Your task to perform on an android device: set default search engine in the chrome app Image 0: 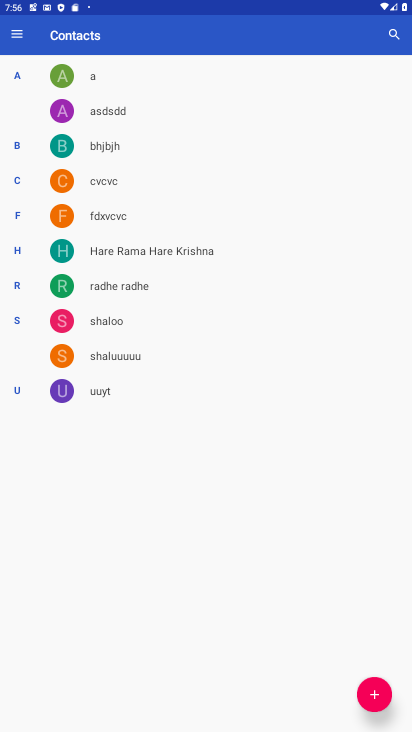
Step 0: press home button
Your task to perform on an android device: set default search engine in the chrome app Image 1: 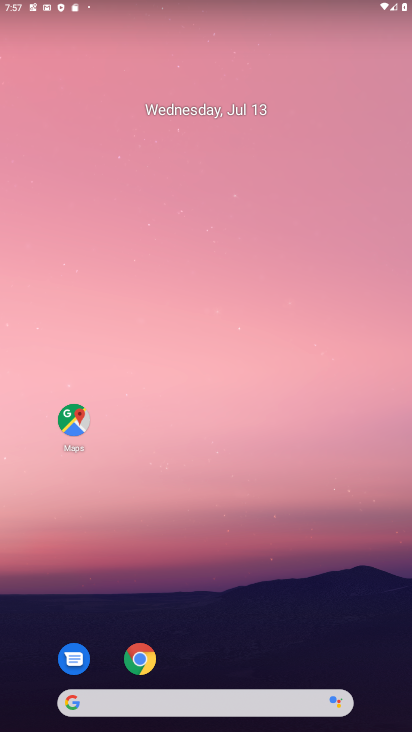
Step 1: click (139, 668)
Your task to perform on an android device: set default search engine in the chrome app Image 2: 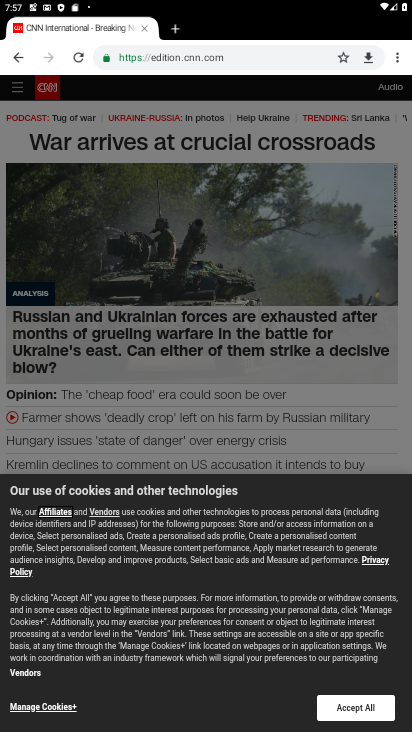
Step 2: click (397, 60)
Your task to perform on an android device: set default search engine in the chrome app Image 3: 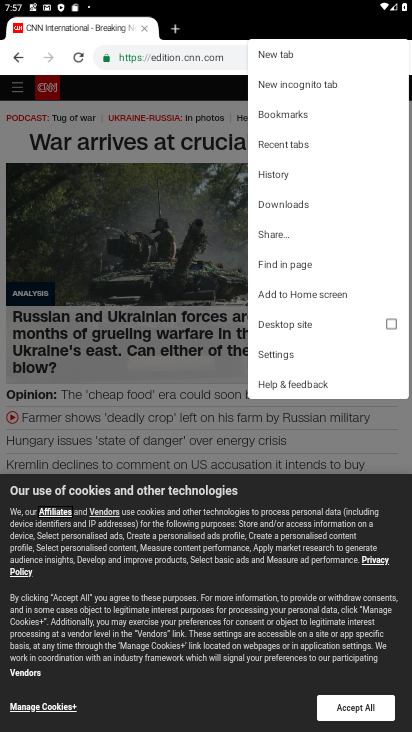
Step 3: click (300, 357)
Your task to perform on an android device: set default search engine in the chrome app Image 4: 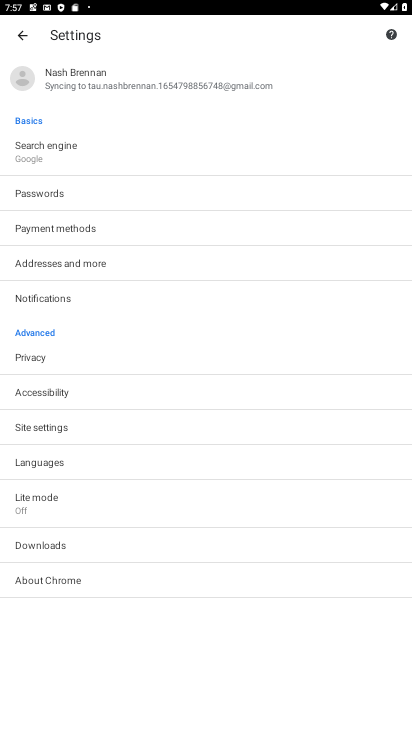
Step 4: click (102, 163)
Your task to perform on an android device: set default search engine in the chrome app Image 5: 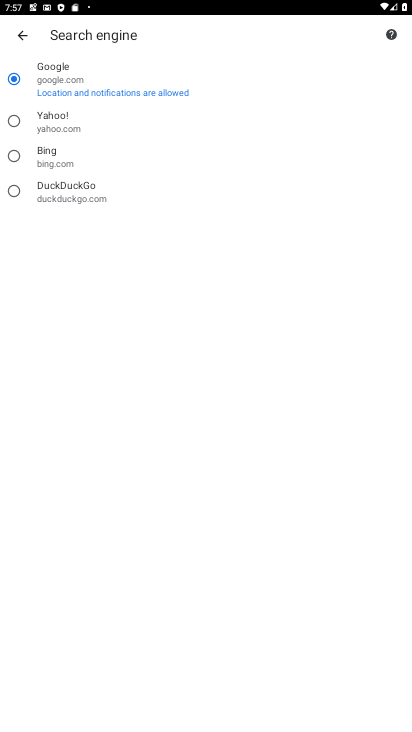
Step 5: task complete